Your task to perform on an android device: open app "Life360: Find Family & Friends" Image 0: 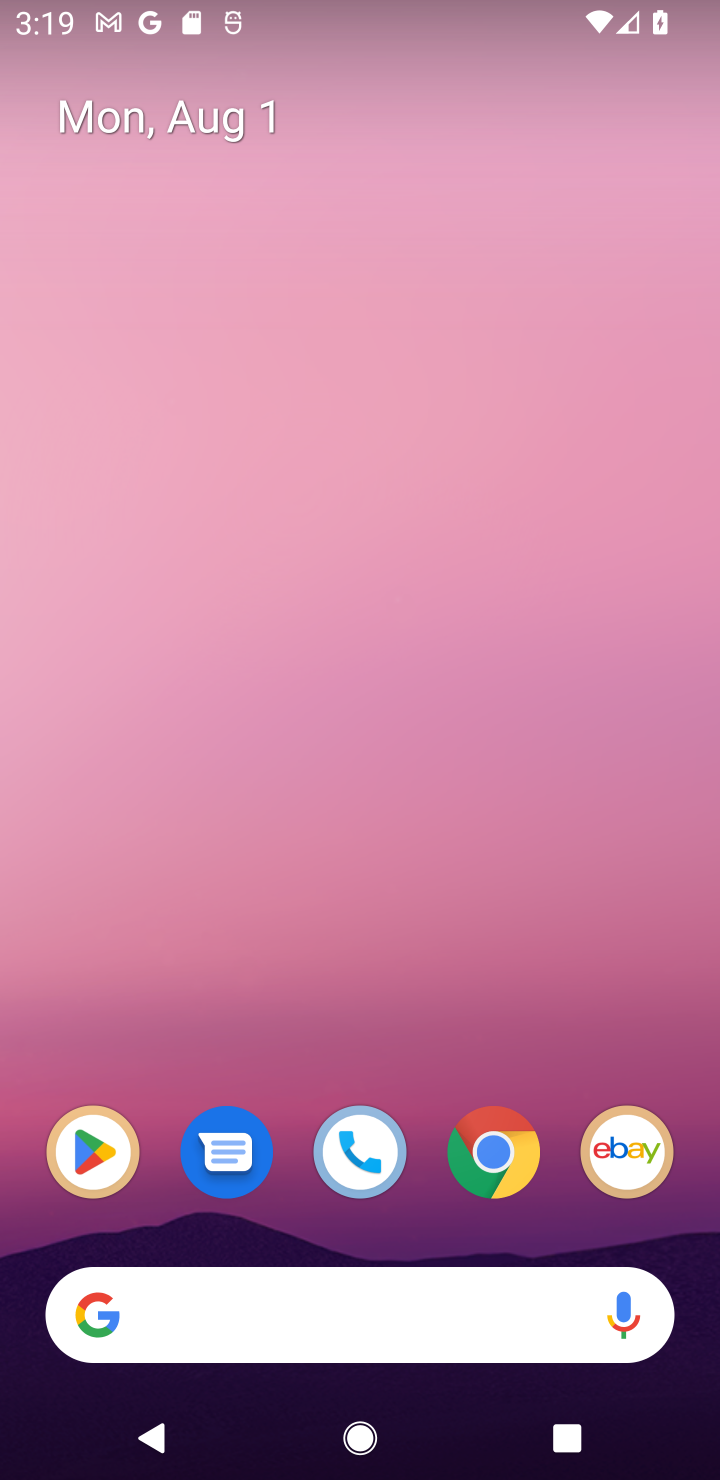
Step 0: click (111, 1194)
Your task to perform on an android device: open app "Life360: Find Family & Friends" Image 1: 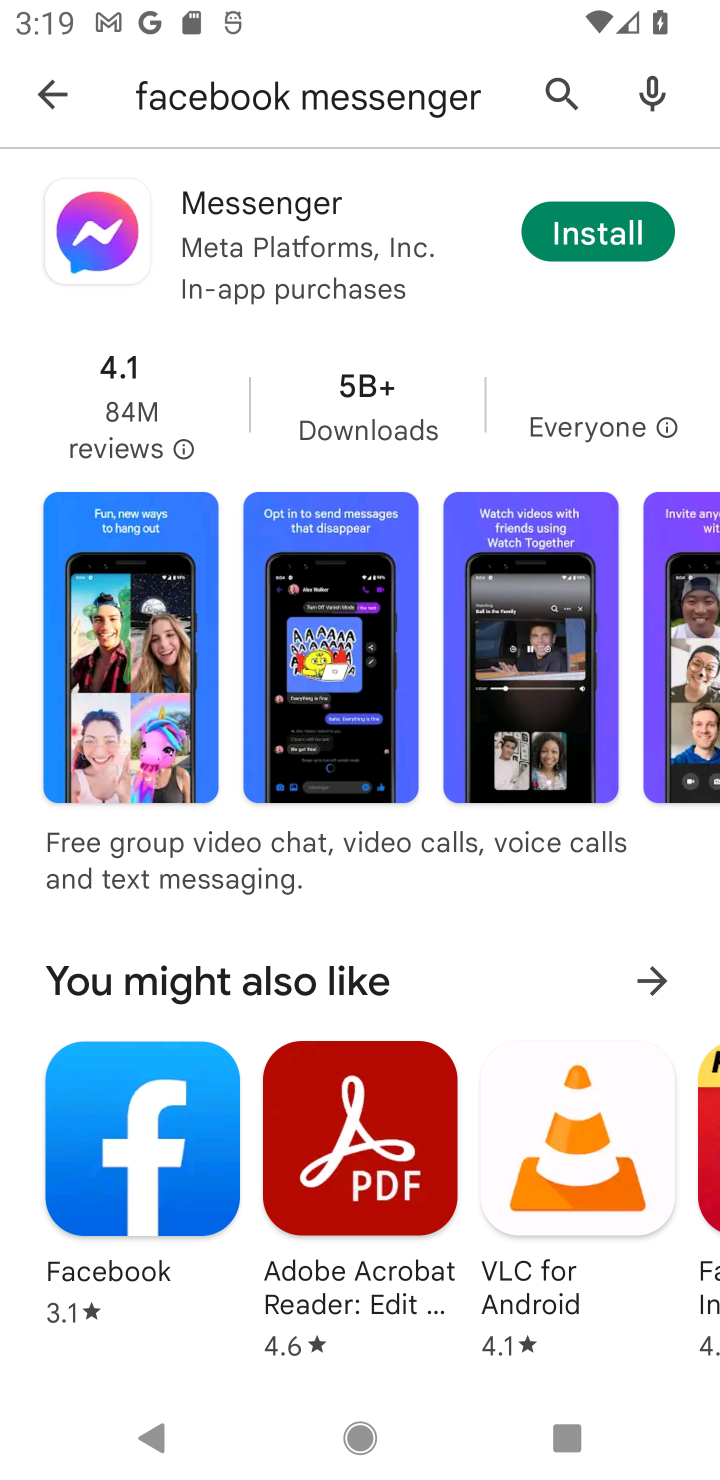
Step 1: click (99, 80)
Your task to perform on an android device: open app "Life360: Find Family & Friends" Image 2: 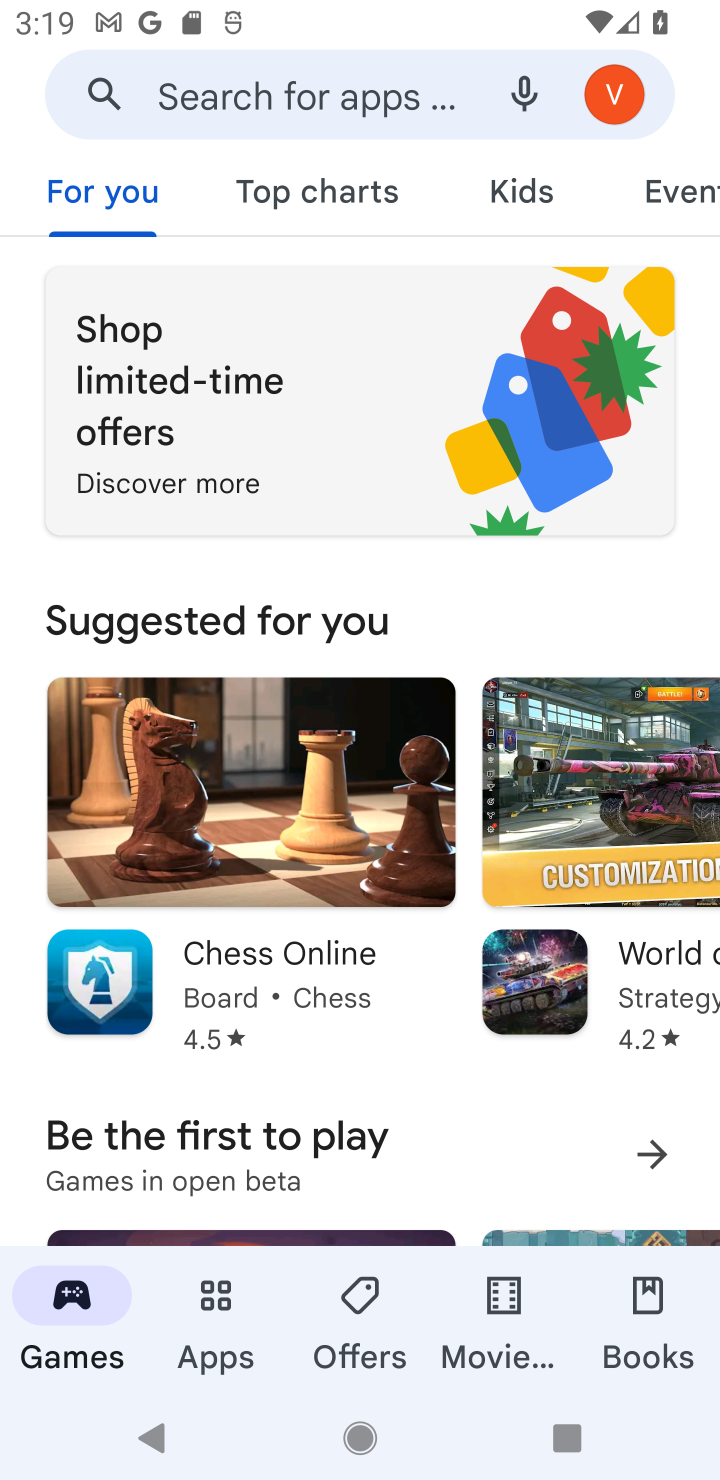
Step 2: click (314, 101)
Your task to perform on an android device: open app "Life360: Find Family & Friends" Image 3: 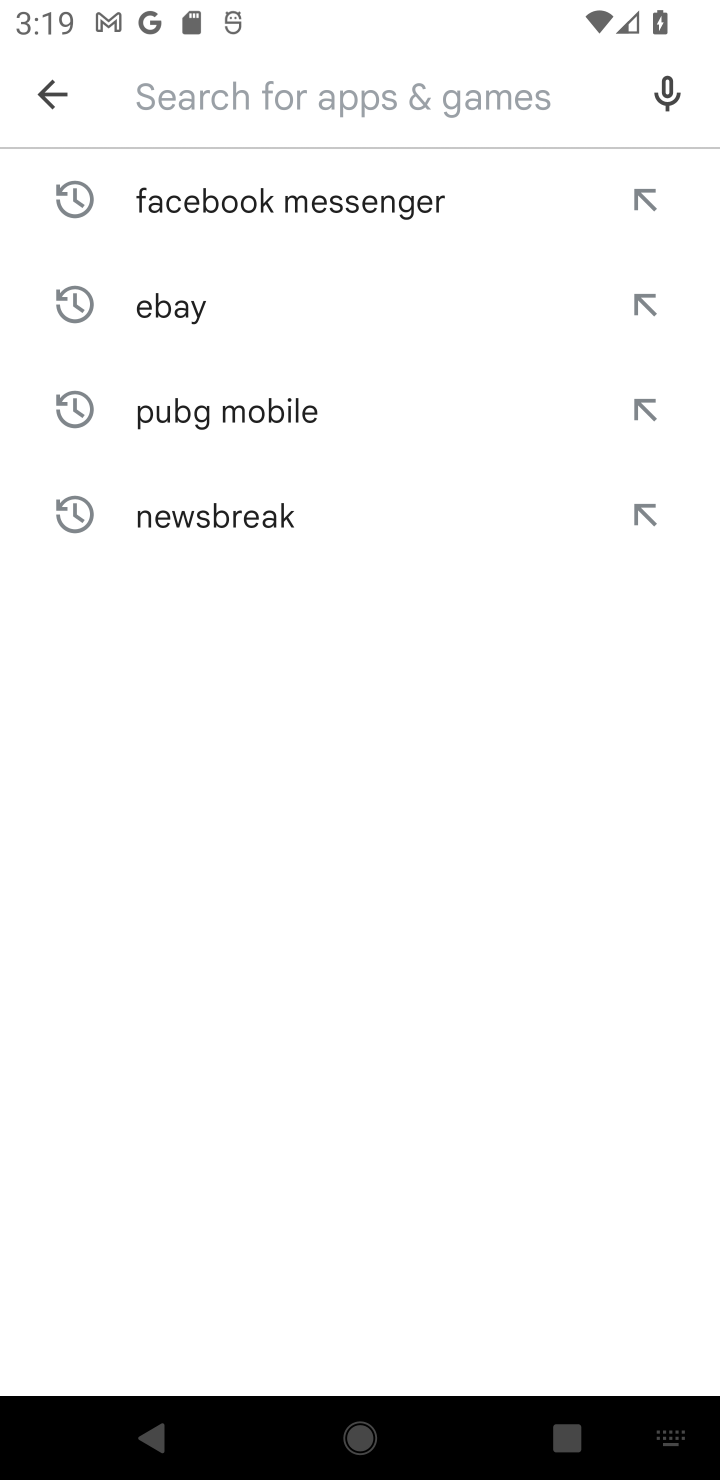
Step 3: type "Life360: Find Family & Friends"
Your task to perform on an android device: open app "Life360: Find Family & Friends" Image 4: 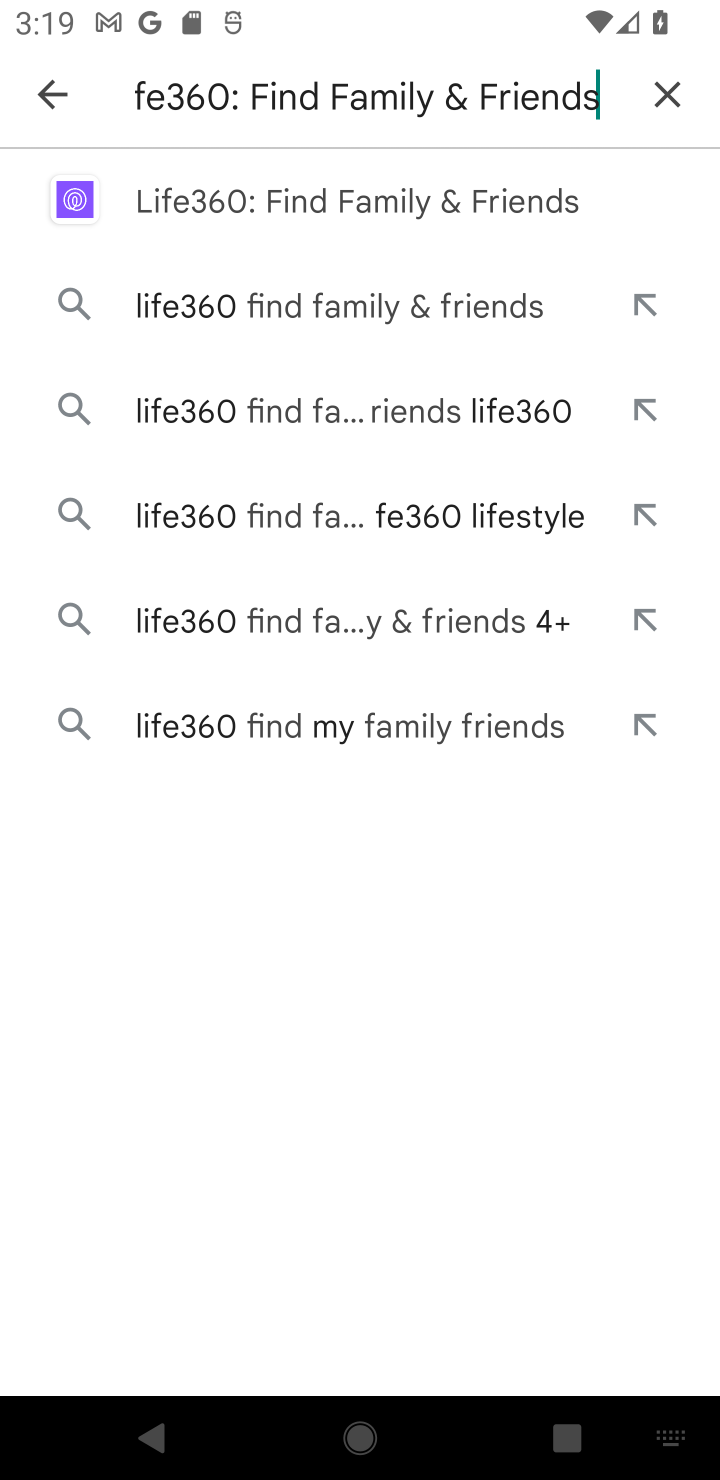
Step 4: click (183, 191)
Your task to perform on an android device: open app "Life360: Find Family & Friends" Image 5: 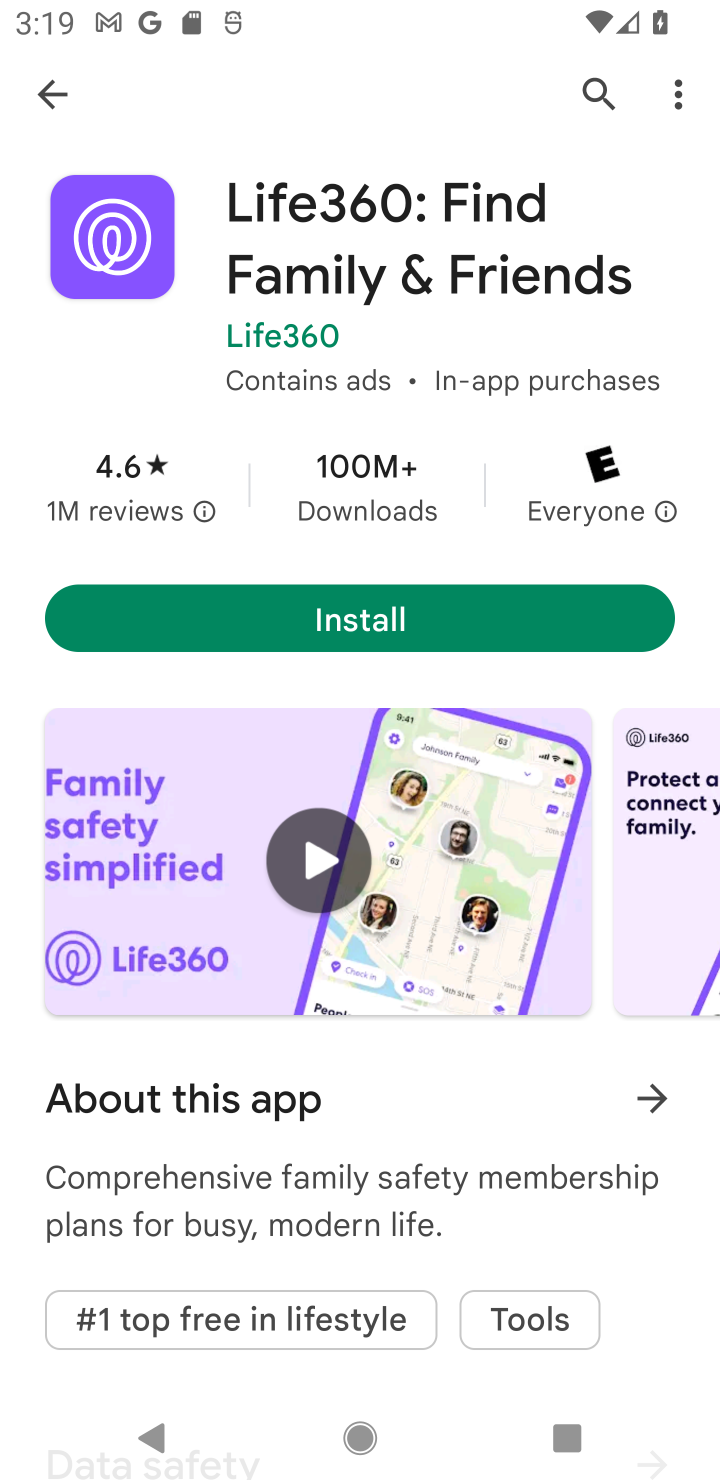
Step 5: task complete